Your task to perform on an android device: stop showing notifications on the lock screen Image 0: 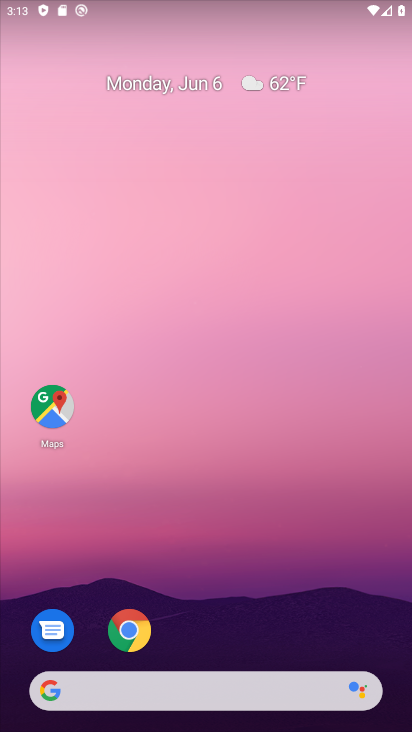
Step 0: press home button
Your task to perform on an android device: stop showing notifications on the lock screen Image 1: 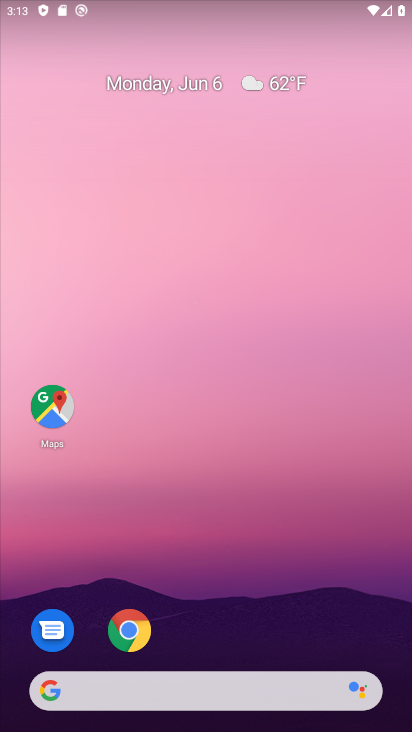
Step 1: drag from (317, 654) to (241, 73)
Your task to perform on an android device: stop showing notifications on the lock screen Image 2: 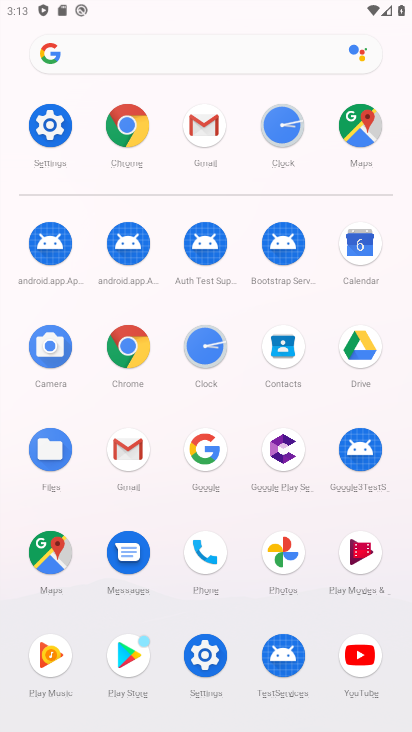
Step 2: click (43, 135)
Your task to perform on an android device: stop showing notifications on the lock screen Image 3: 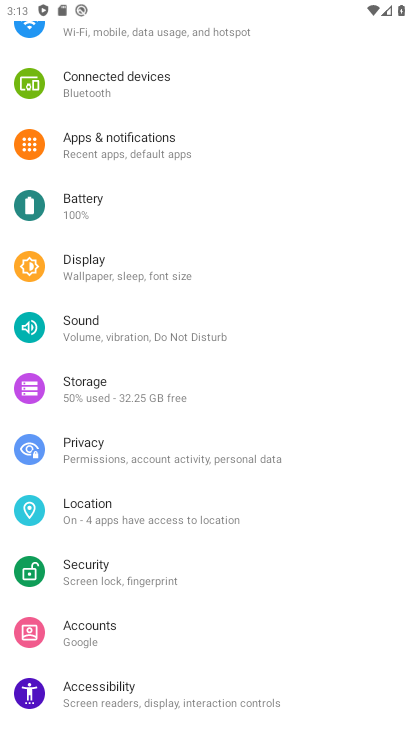
Step 3: click (201, 131)
Your task to perform on an android device: stop showing notifications on the lock screen Image 4: 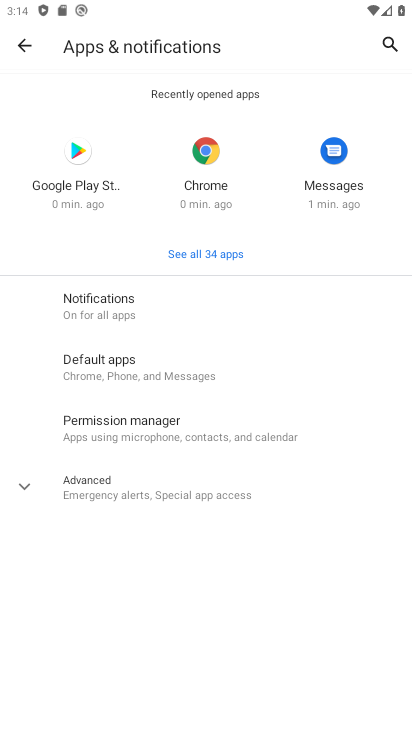
Step 4: click (109, 504)
Your task to perform on an android device: stop showing notifications on the lock screen Image 5: 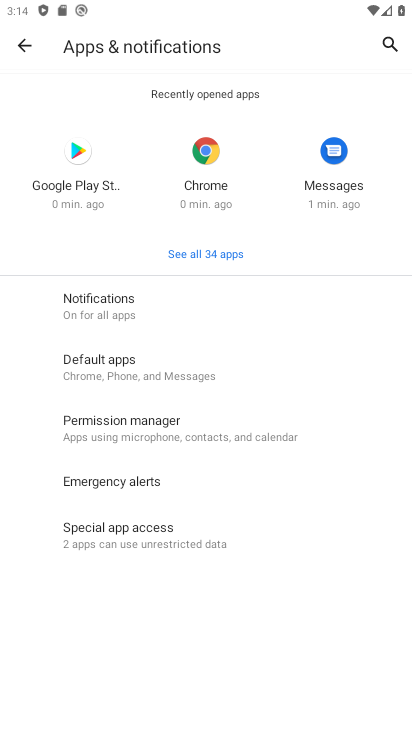
Step 5: click (115, 325)
Your task to perform on an android device: stop showing notifications on the lock screen Image 6: 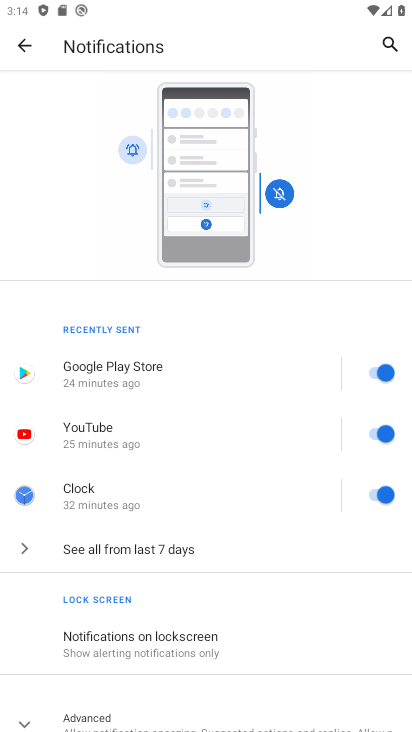
Step 6: click (100, 628)
Your task to perform on an android device: stop showing notifications on the lock screen Image 7: 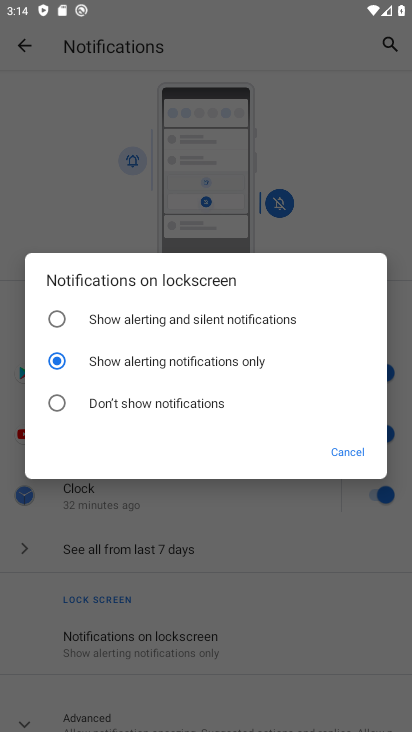
Step 7: click (112, 396)
Your task to perform on an android device: stop showing notifications on the lock screen Image 8: 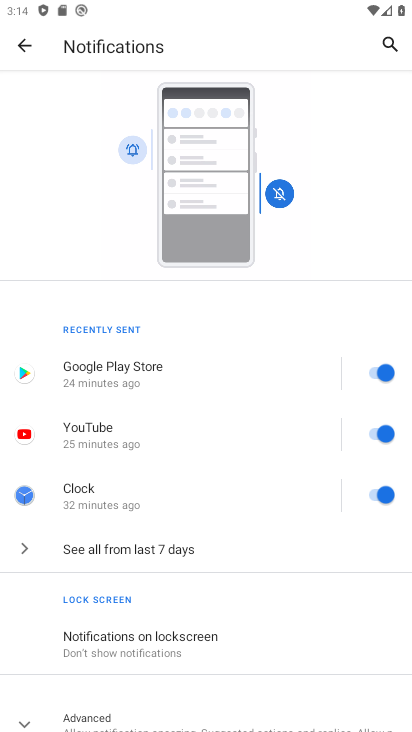
Step 8: task complete